Your task to perform on an android device: Open Reddit.com Image 0: 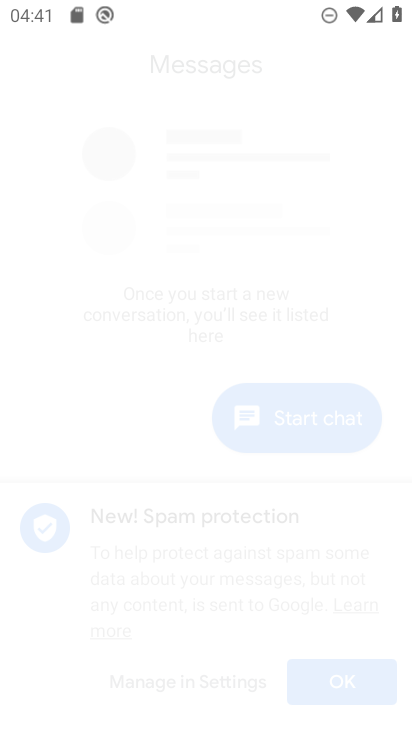
Step 0: drag from (191, 622) to (236, 131)
Your task to perform on an android device: Open Reddit.com Image 1: 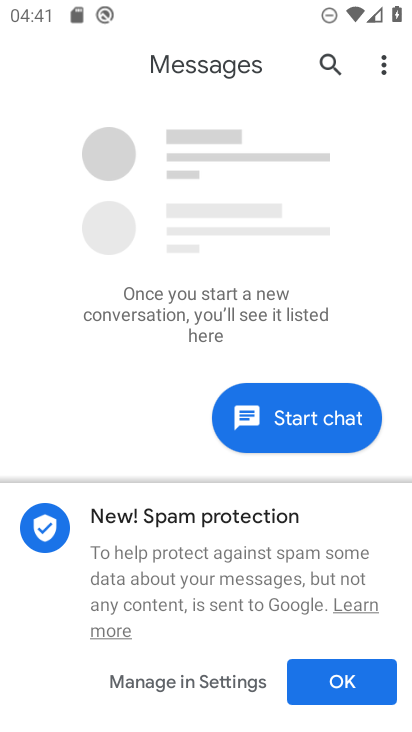
Step 1: press home button
Your task to perform on an android device: Open Reddit.com Image 2: 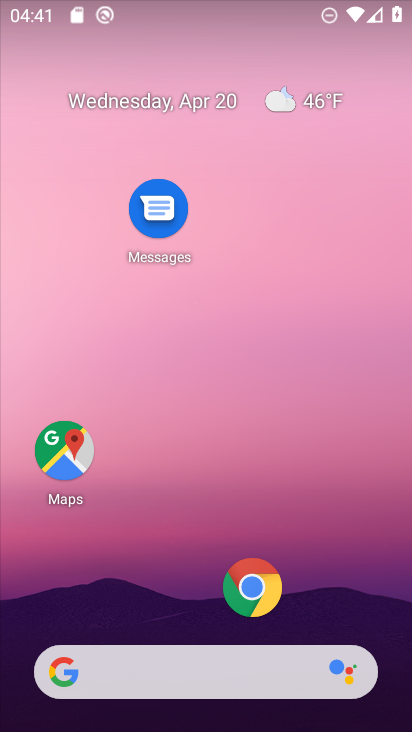
Step 2: click (192, 665)
Your task to perform on an android device: Open Reddit.com Image 3: 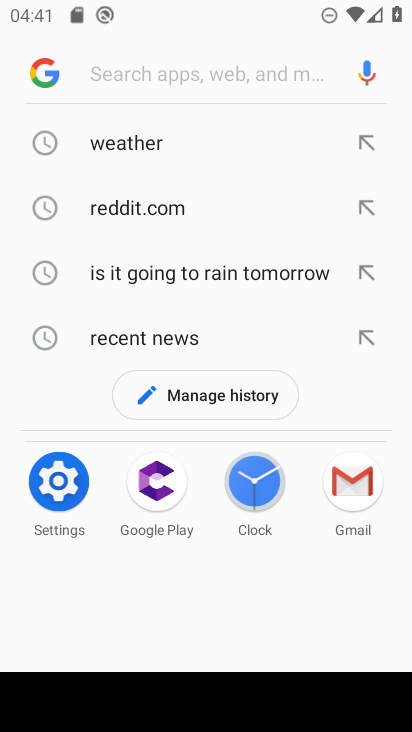
Step 3: click (137, 209)
Your task to perform on an android device: Open Reddit.com Image 4: 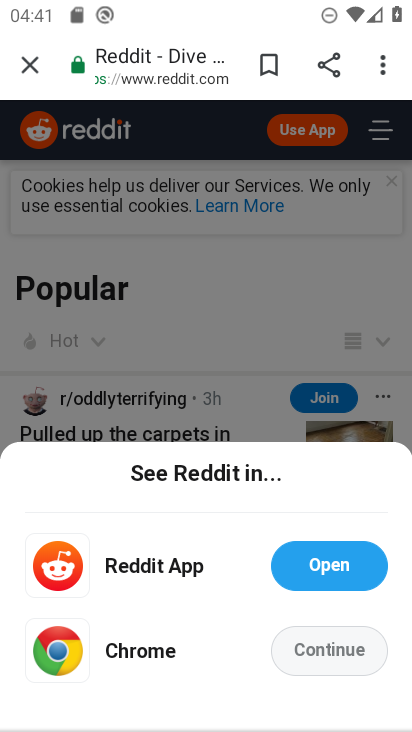
Step 4: click (309, 649)
Your task to perform on an android device: Open Reddit.com Image 5: 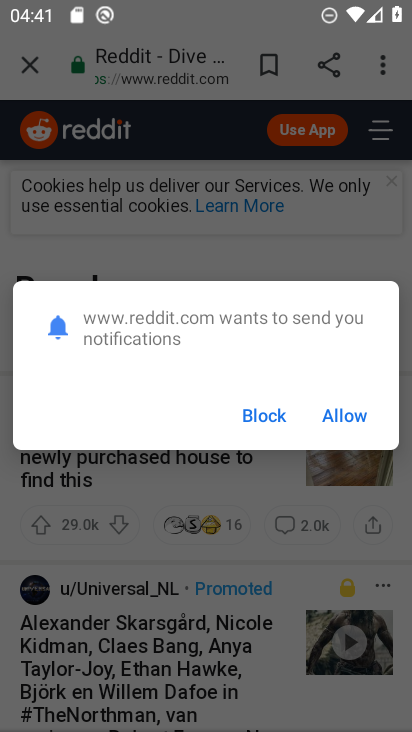
Step 5: task complete